Your task to perform on an android device: turn off notifications settings in the gmail app Image 0: 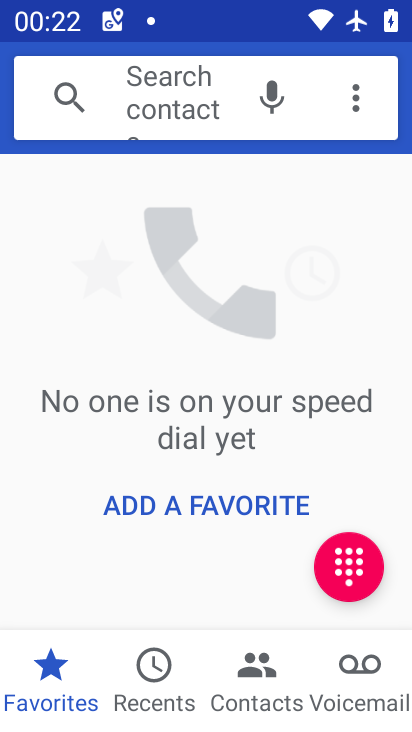
Step 0: press home button
Your task to perform on an android device: turn off notifications settings in the gmail app Image 1: 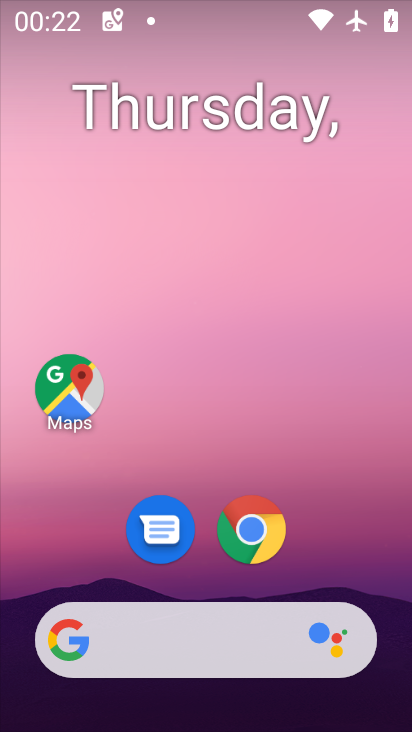
Step 1: drag from (399, 626) to (294, 27)
Your task to perform on an android device: turn off notifications settings in the gmail app Image 2: 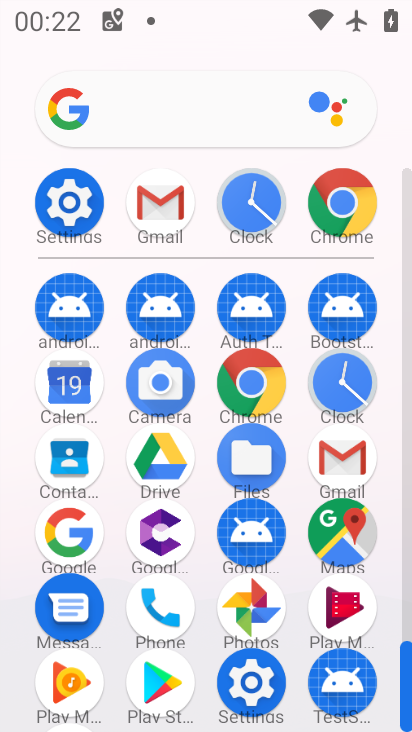
Step 2: click (408, 603)
Your task to perform on an android device: turn off notifications settings in the gmail app Image 3: 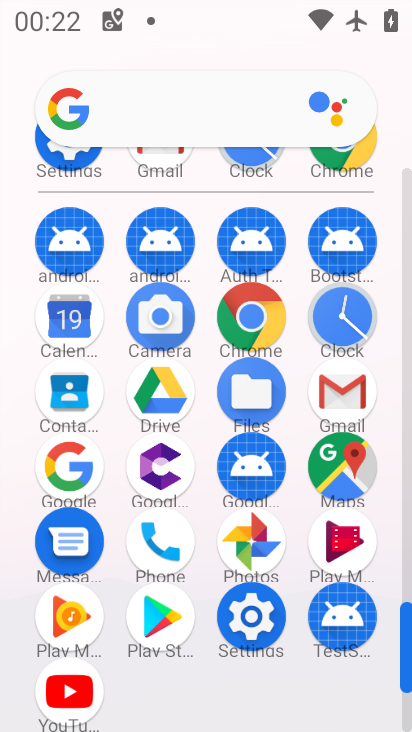
Step 3: click (343, 390)
Your task to perform on an android device: turn off notifications settings in the gmail app Image 4: 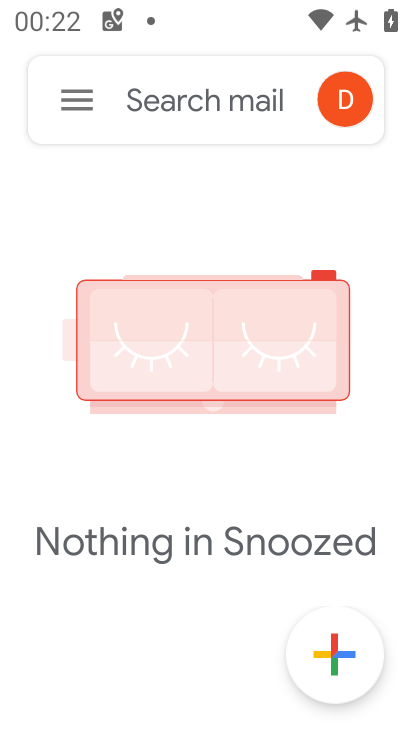
Step 4: click (71, 93)
Your task to perform on an android device: turn off notifications settings in the gmail app Image 5: 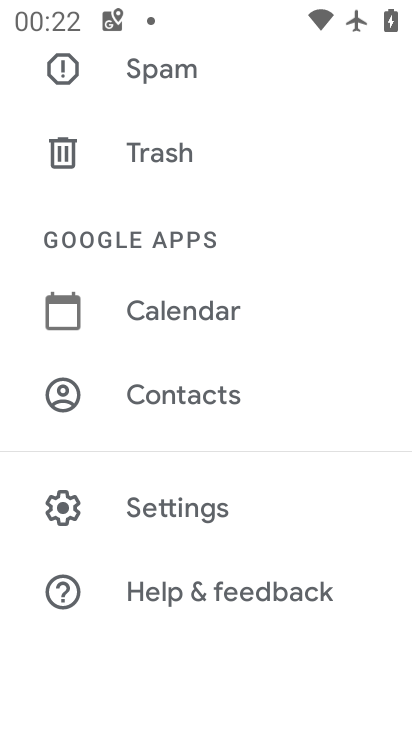
Step 5: click (172, 513)
Your task to perform on an android device: turn off notifications settings in the gmail app Image 6: 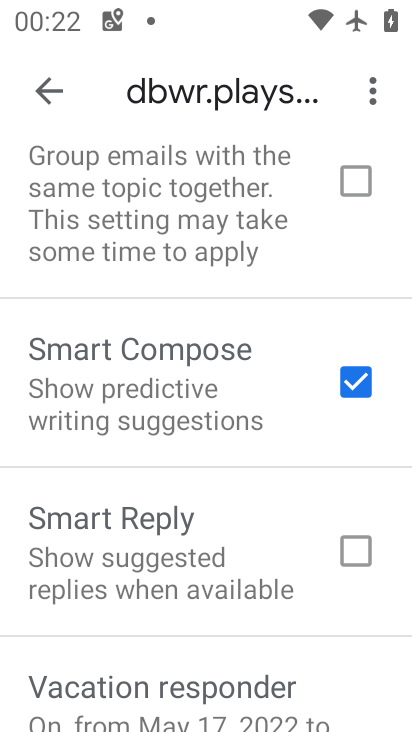
Step 6: drag from (294, 250) to (256, 610)
Your task to perform on an android device: turn off notifications settings in the gmail app Image 7: 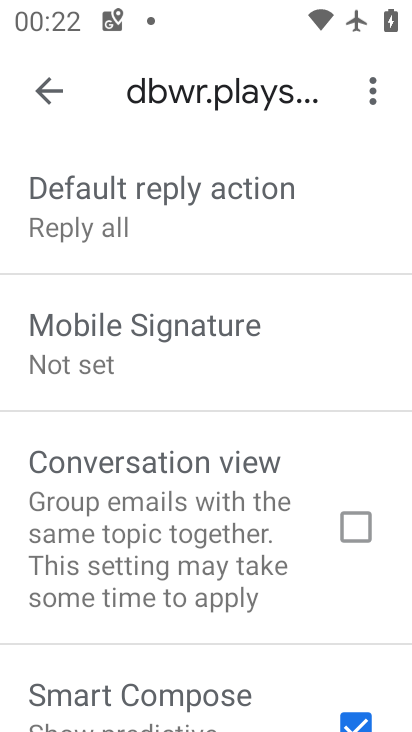
Step 7: drag from (335, 195) to (300, 517)
Your task to perform on an android device: turn off notifications settings in the gmail app Image 8: 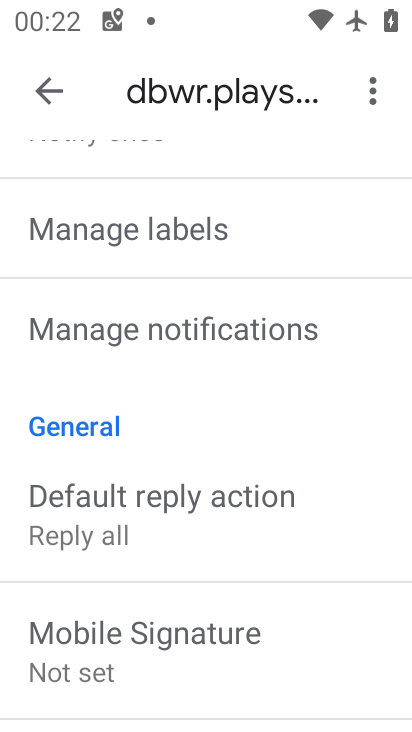
Step 8: drag from (342, 251) to (319, 486)
Your task to perform on an android device: turn off notifications settings in the gmail app Image 9: 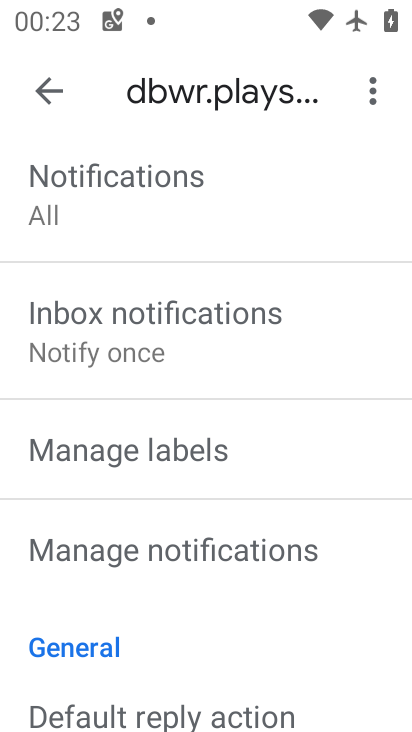
Step 9: click (119, 550)
Your task to perform on an android device: turn off notifications settings in the gmail app Image 10: 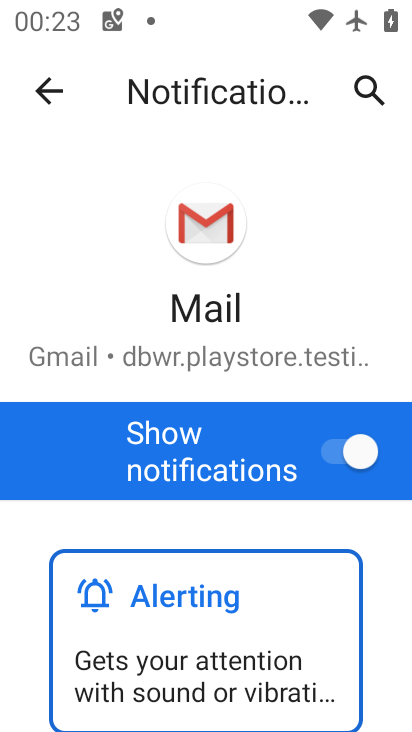
Step 10: click (326, 455)
Your task to perform on an android device: turn off notifications settings in the gmail app Image 11: 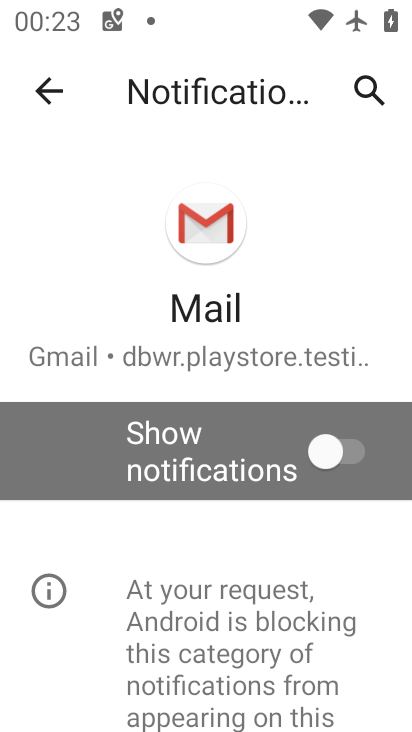
Step 11: task complete